Your task to perform on an android device: Open sound settings Image 0: 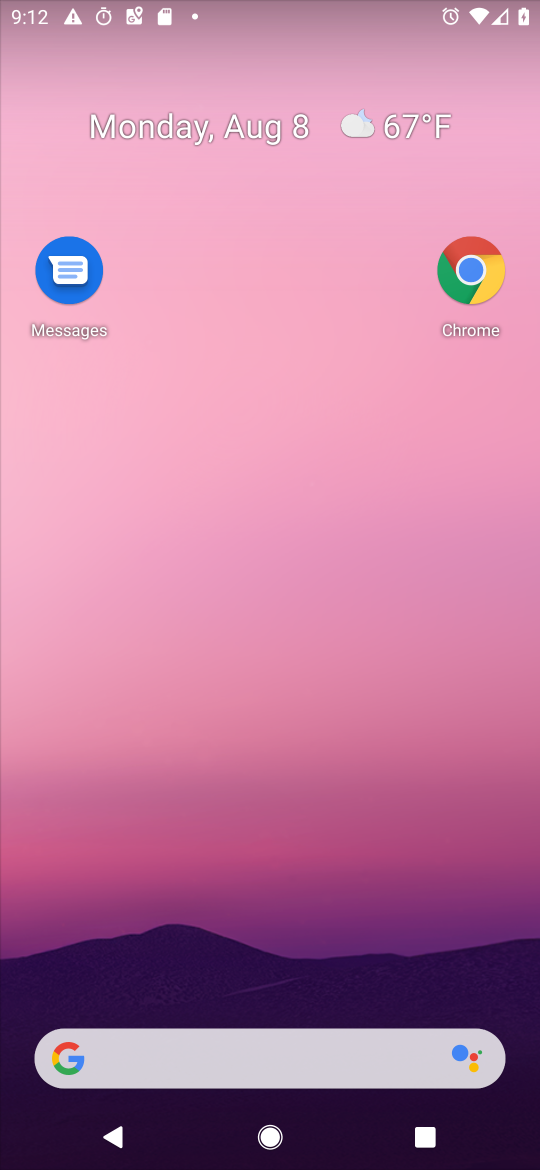
Step 0: drag from (287, 960) to (198, 35)
Your task to perform on an android device: Open sound settings Image 1: 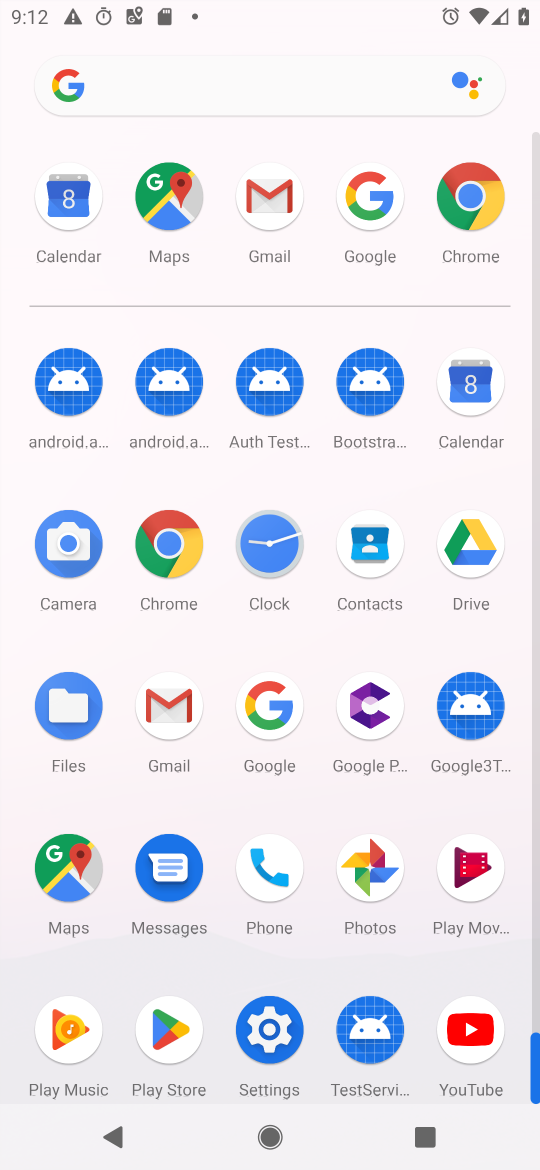
Step 1: click (262, 1030)
Your task to perform on an android device: Open sound settings Image 2: 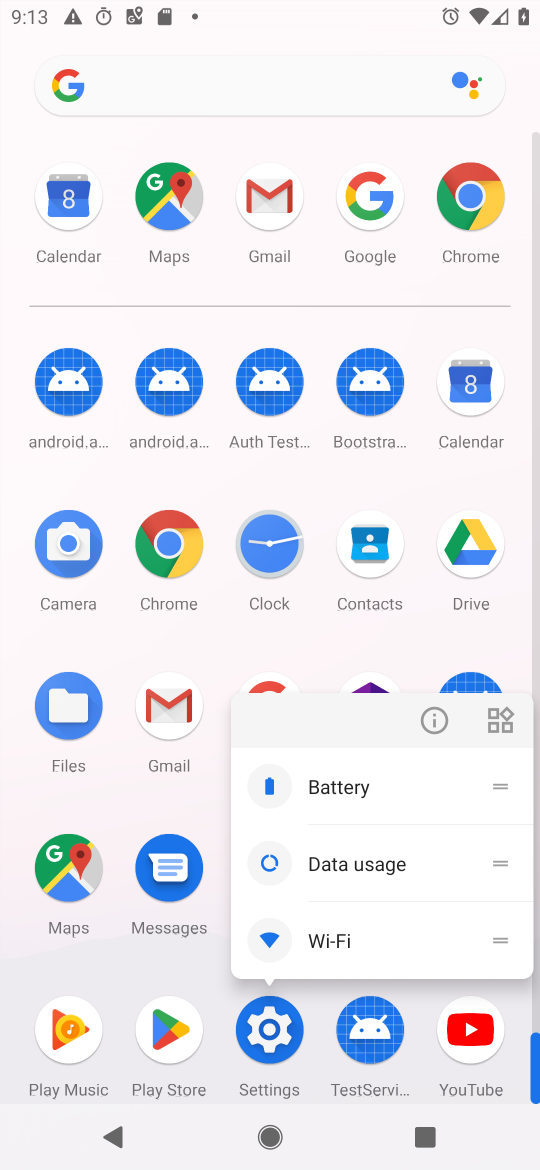
Step 2: click (439, 716)
Your task to perform on an android device: Open sound settings Image 3: 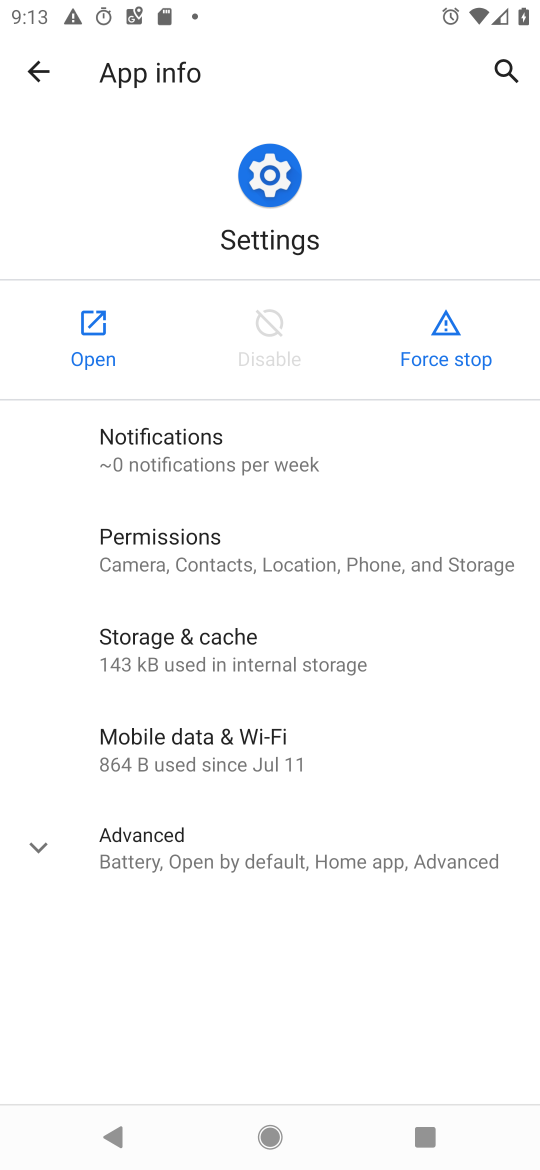
Step 3: click (83, 336)
Your task to perform on an android device: Open sound settings Image 4: 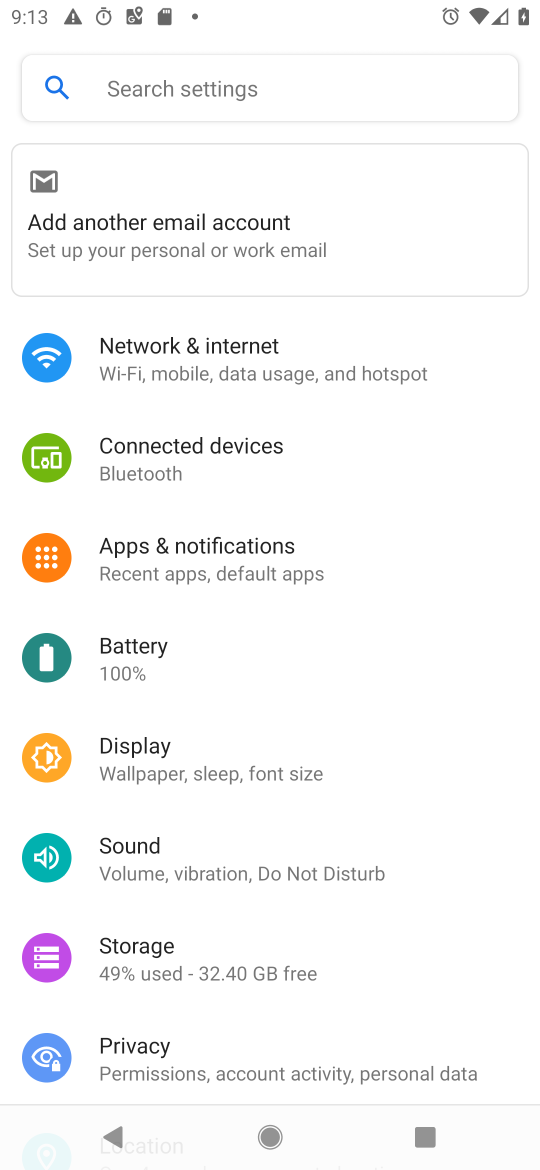
Step 4: drag from (278, 980) to (340, 260)
Your task to perform on an android device: Open sound settings Image 5: 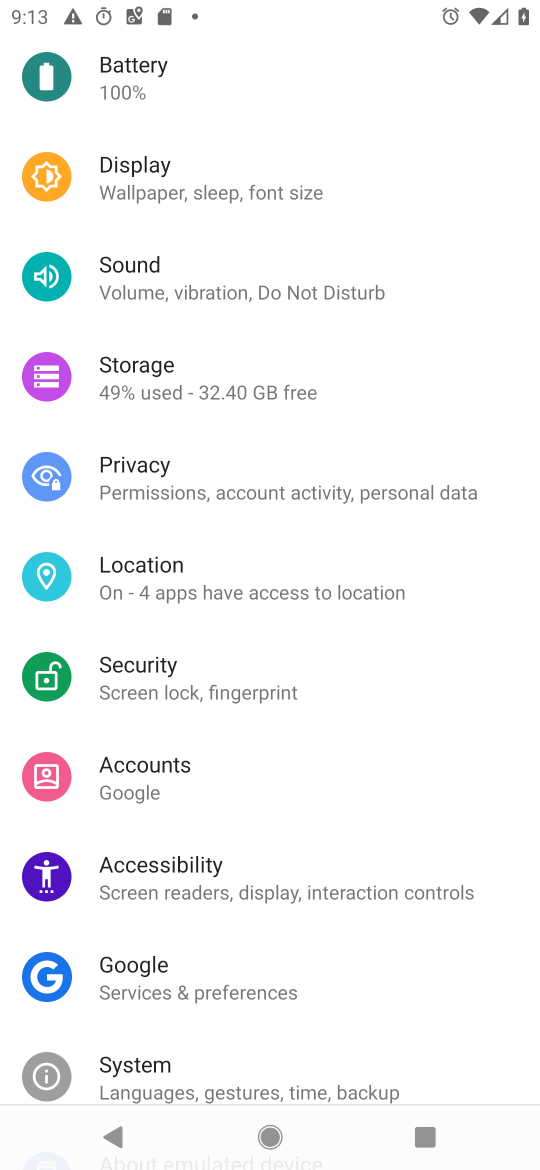
Step 5: click (188, 293)
Your task to perform on an android device: Open sound settings Image 6: 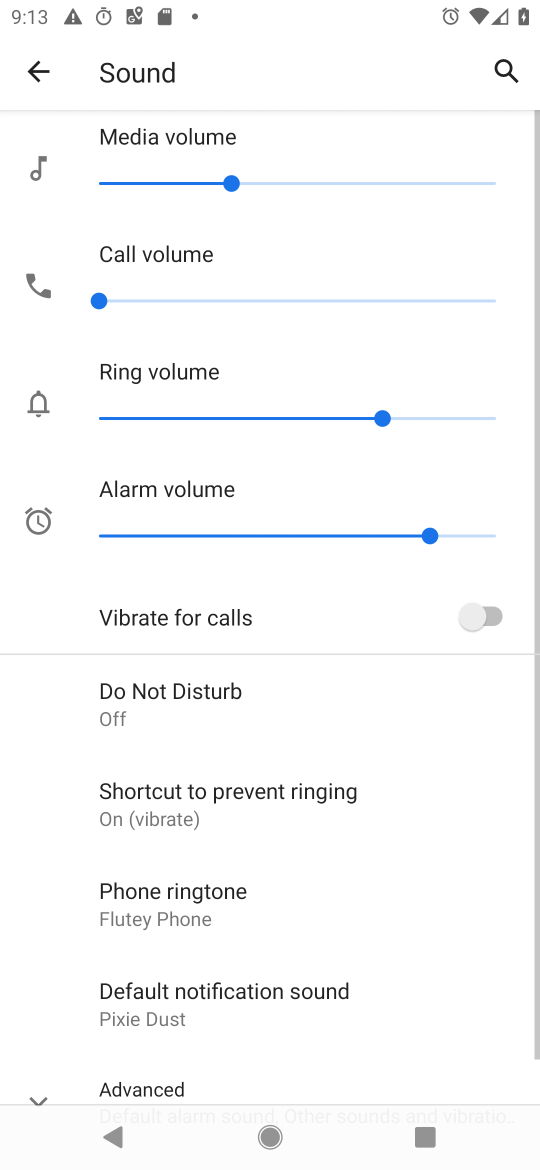
Step 6: task complete